Your task to perform on an android device: add a label to a message in the gmail app Image 0: 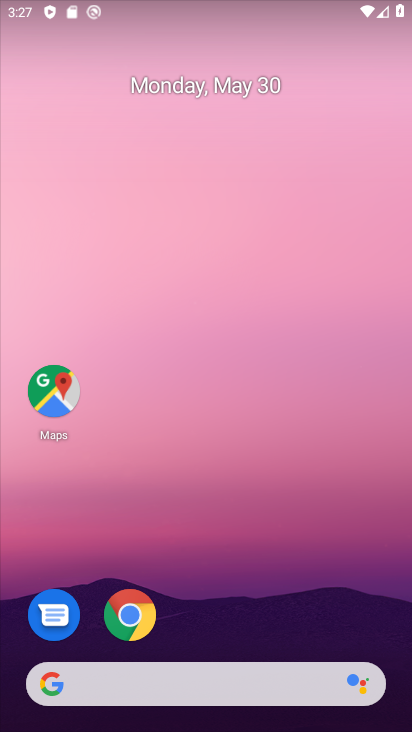
Step 0: drag from (255, 621) to (178, 151)
Your task to perform on an android device: add a label to a message in the gmail app Image 1: 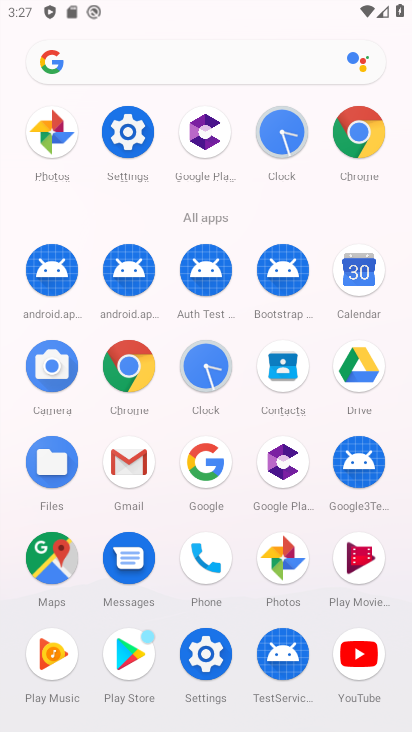
Step 1: click (128, 466)
Your task to perform on an android device: add a label to a message in the gmail app Image 2: 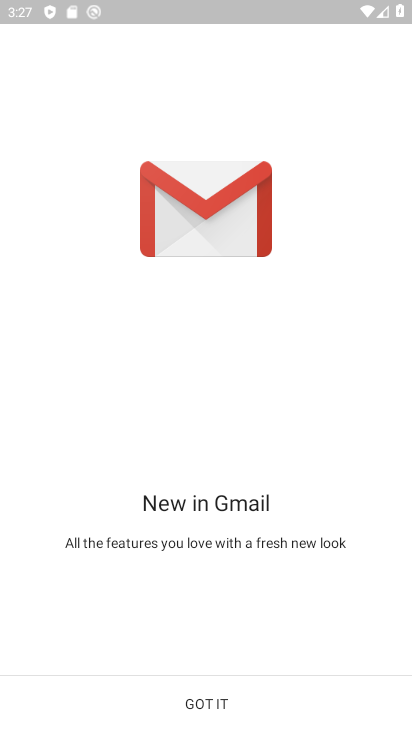
Step 2: click (214, 699)
Your task to perform on an android device: add a label to a message in the gmail app Image 3: 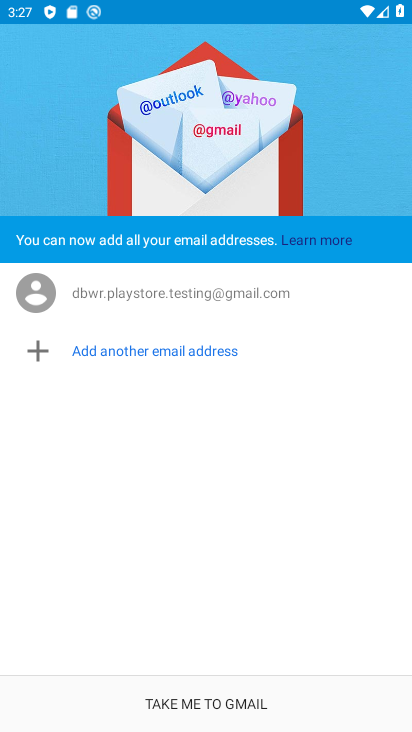
Step 3: click (215, 700)
Your task to perform on an android device: add a label to a message in the gmail app Image 4: 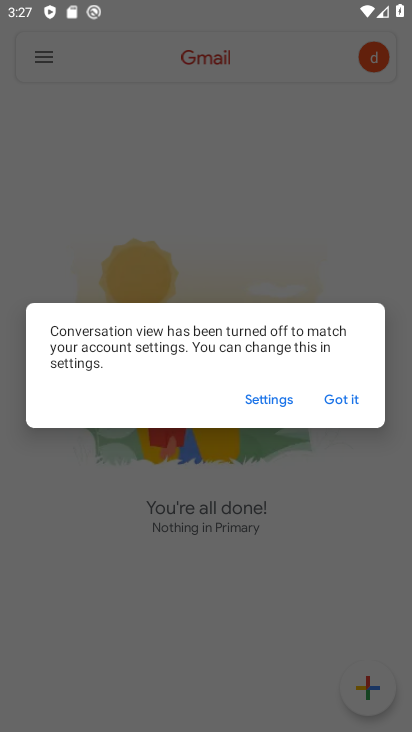
Step 4: click (345, 401)
Your task to perform on an android device: add a label to a message in the gmail app Image 5: 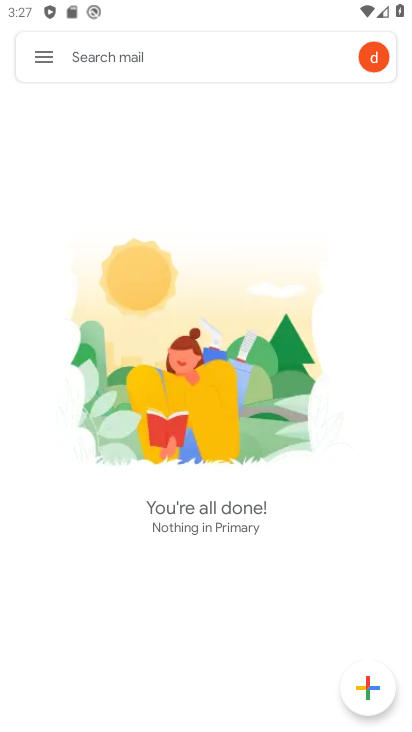
Step 5: click (43, 59)
Your task to perform on an android device: add a label to a message in the gmail app Image 6: 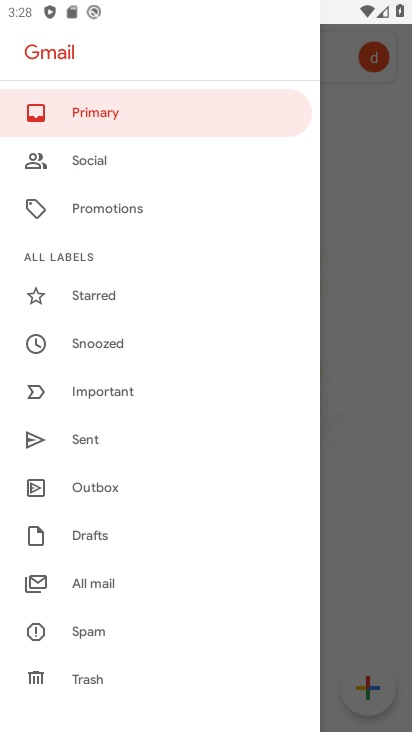
Step 6: click (107, 585)
Your task to perform on an android device: add a label to a message in the gmail app Image 7: 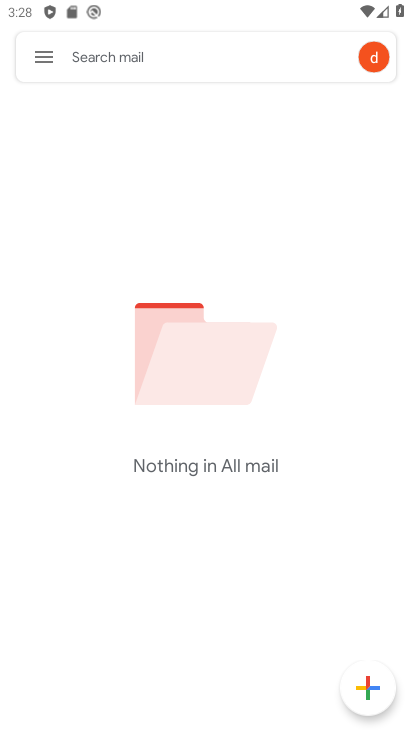
Step 7: click (34, 56)
Your task to perform on an android device: add a label to a message in the gmail app Image 8: 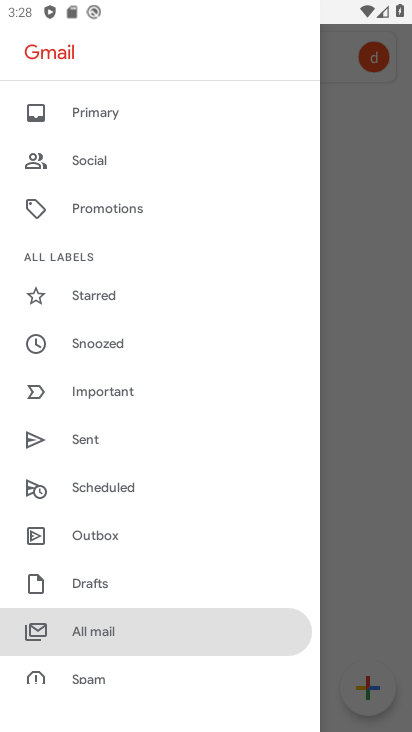
Step 8: click (100, 119)
Your task to perform on an android device: add a label to a message in the gmail app Image 9: 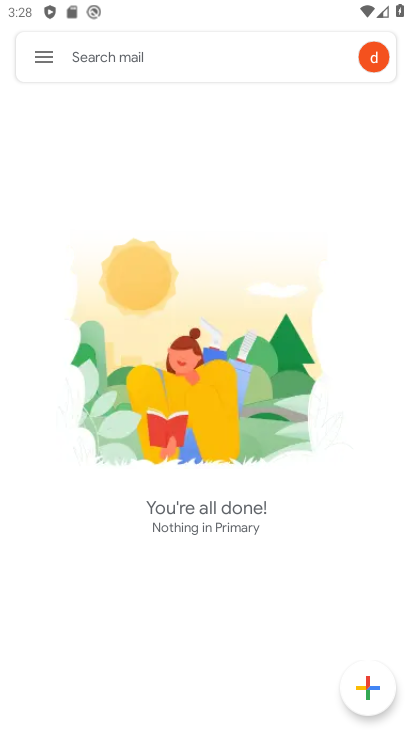
Step 9: click (43, 54)
Your task to perform on an android device: add a label to a message in the gmail app Image 10: 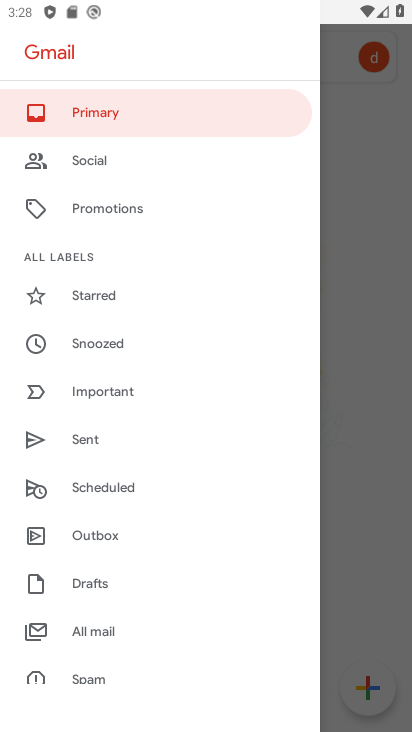
Step 10: click (105, 160)
Your task to perform on an android device: add a label to a message in the gmail app Image 11: 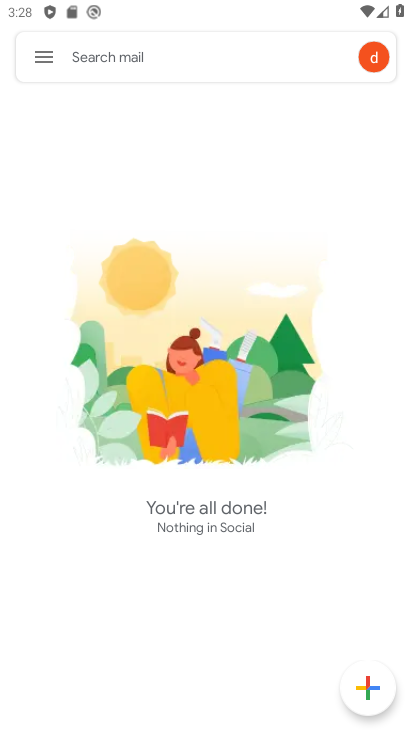
Step 11: click (42, 59)
Your task to perform on an android device: add a label to a message in the gmail app Image 12: 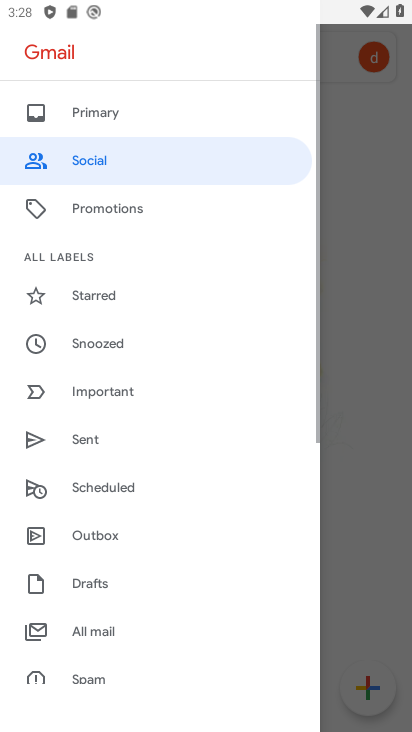
Step 12: click (87, 212)
Your task to perform on an android device: add a label to a message in the gmail app Image 13: 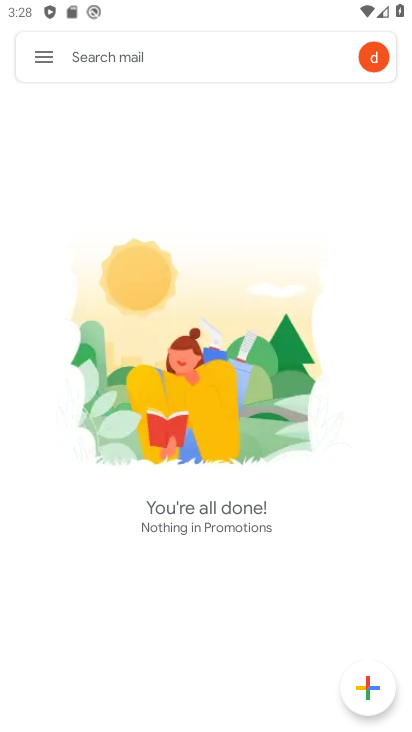
Step 13: click (48, 59)
Your task to perform on an android device: add a label to a message in the gmail app Image 14: 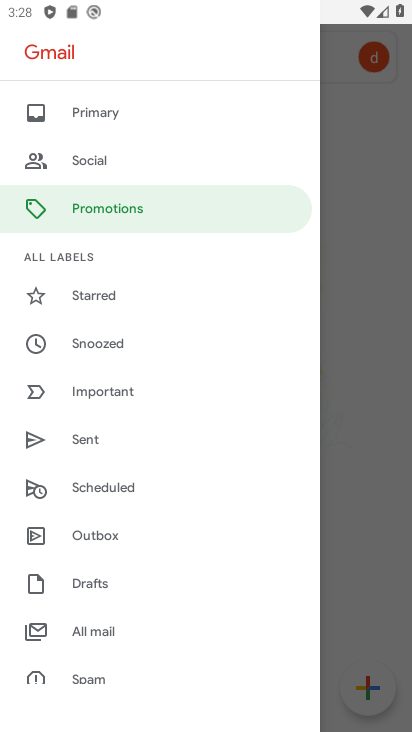
Step 14: click (112, 295)
Your task to perform on an android device: add a label to a message in the gmail app Image 15: 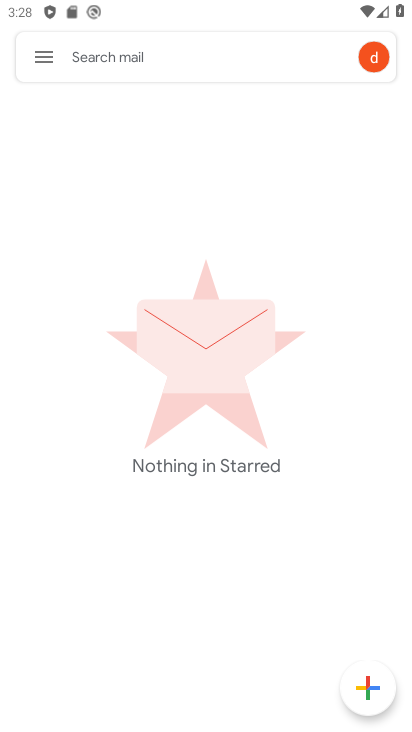
Step 15: click (49, 48)
Your task to perform on an android device: add a label to a message in the gmail app Image 16: 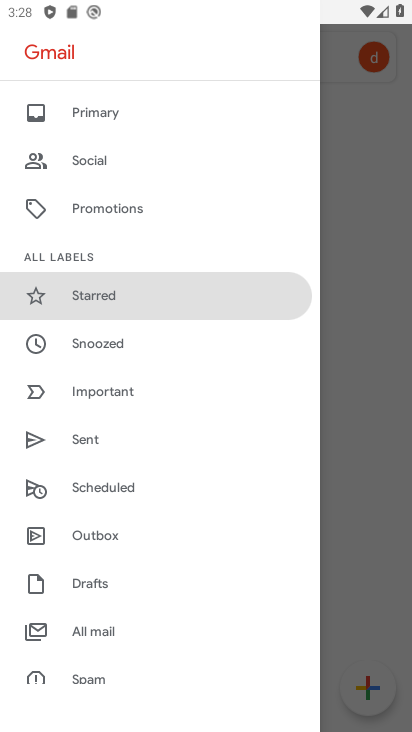
Step 16: click (111, 348)
Your task to perform on an android device: add a label to a message in the gmail app Image 17: 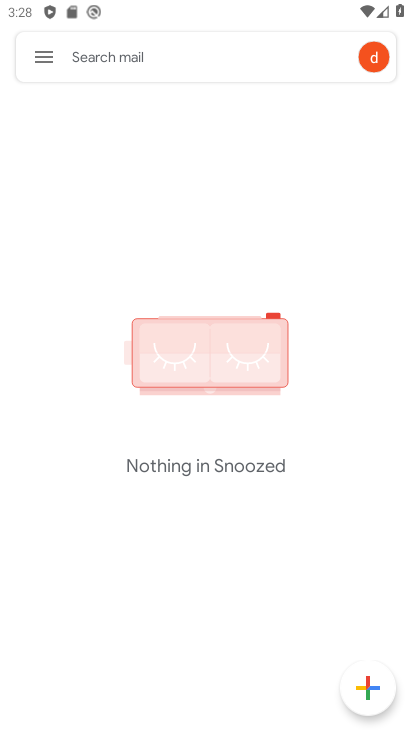
Step 17: task complete